Your task to perform on an android device: add a contact Image 0: 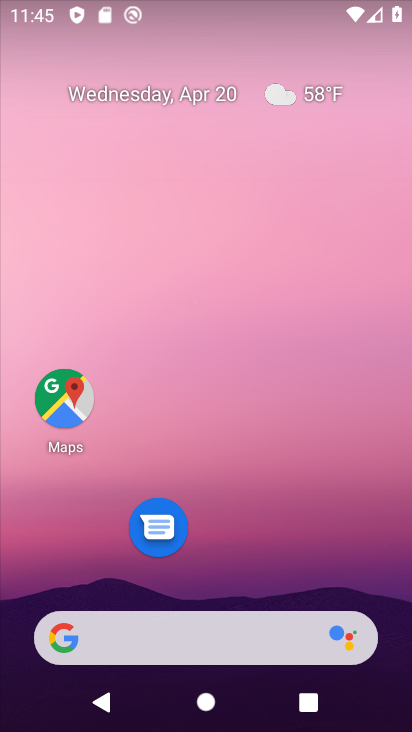
Step 0: drag from (212, 713) to (201, 92)
Your task to perform on an android device: add a contact Image 1: 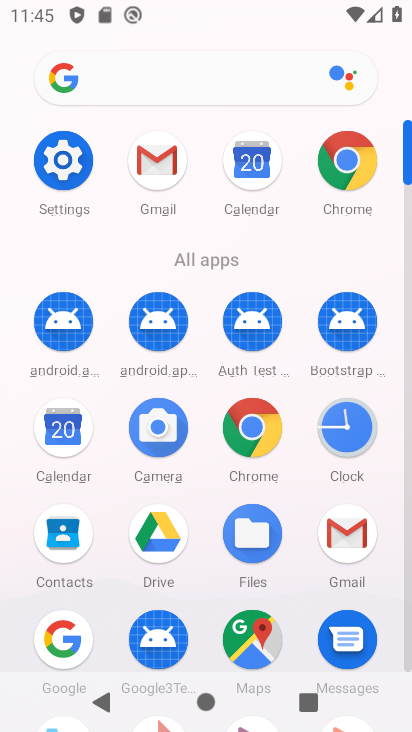
Step 1: click (70, 531)
Your task to perform on an android device: add a contact Image 2: 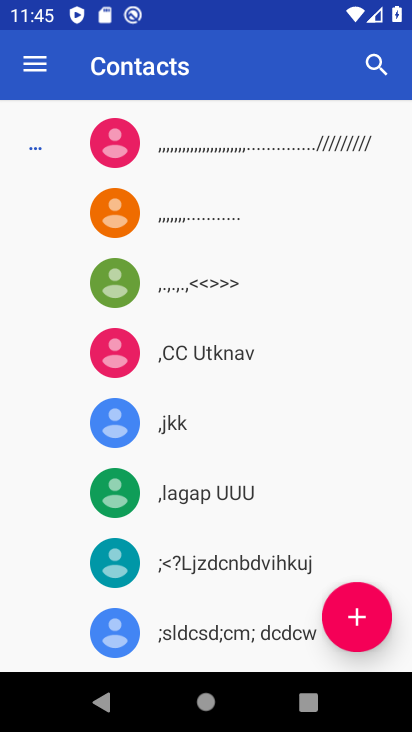
Step 2: click (357, 616)
Your task to perform on an android device: add a contact Image 3: 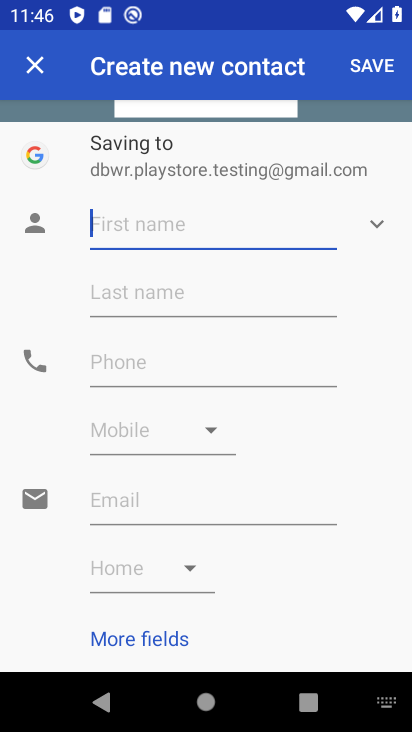
Step 3: type "mobile"
Your task to perform on an android device: add a contact Image 4: 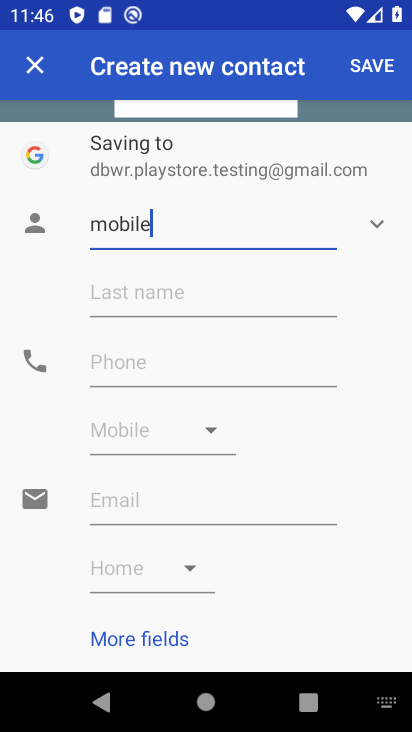
Step 4: click (126, 363)
Your task to perform on an android device: add a contact Image 5: 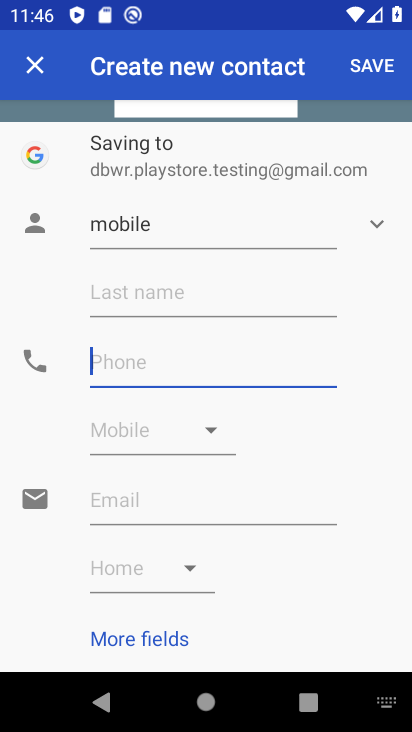
Step 5: type "909765"
Your task to perform on an android device: add a contact Image 6: 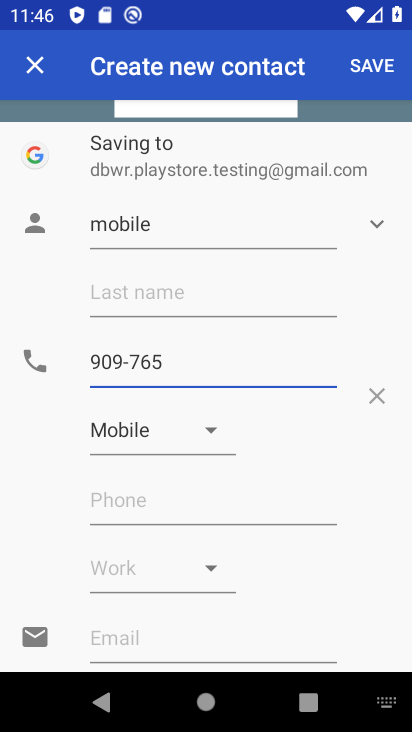
Step 6: click (361, 63)
Your task to perform on an android device: add a contact Image 7: 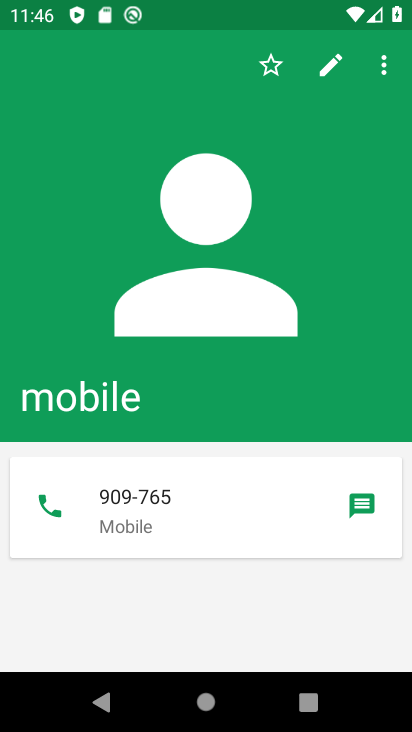
Step 7: task complete